Your task to perform on an android device: check data usage Image 0: 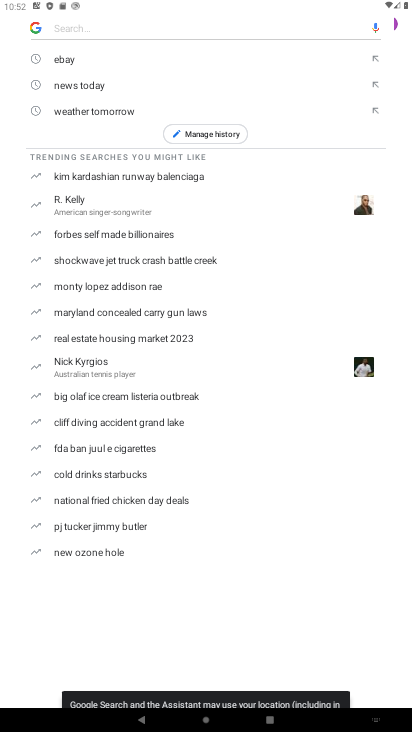
Step 0: press back button
Your task to perform on an android device: check data usage Image 1: 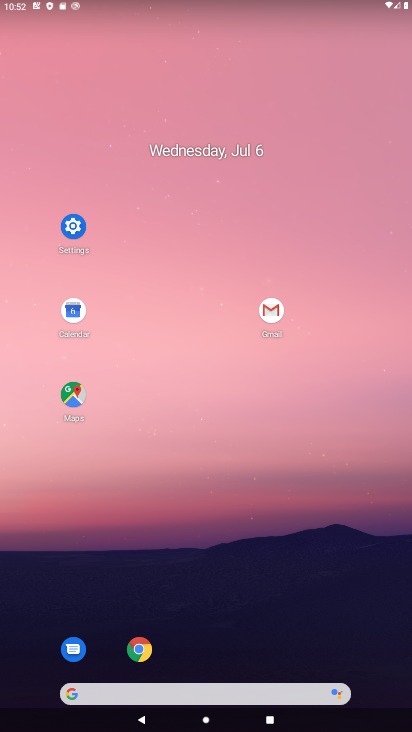
Step 1: click (72, 215)
Your task to perform on an android device: check data usage Image 2: 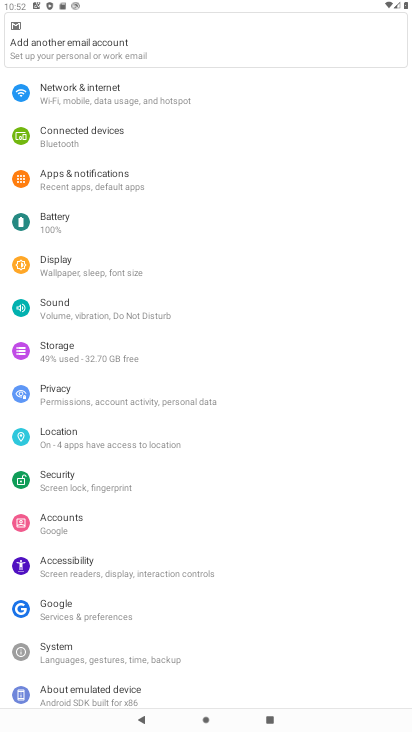
Step 2: click (209, 77)
Your task to perform on an android device: check data usage Image 3: 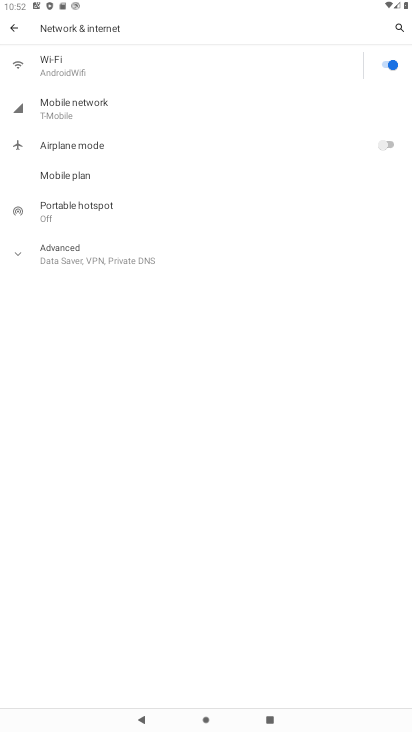
Step 3: click (159, 129)
Your task to perform on an android device: check data usage Image 4: 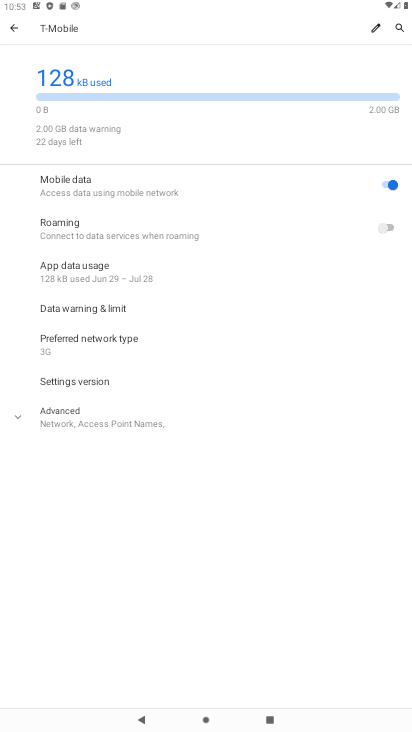
Step 4: task complete